Your task to perform on an android device: set the stopwatch Image 0: 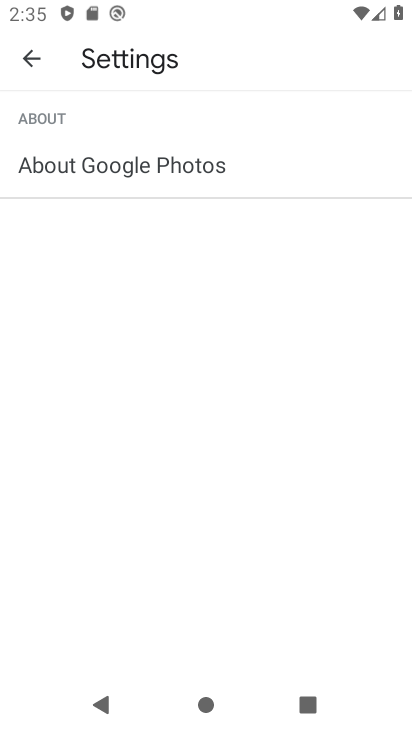
Step 0: press home button
Your task to perform on an android device: set the stopwatch Image 1: 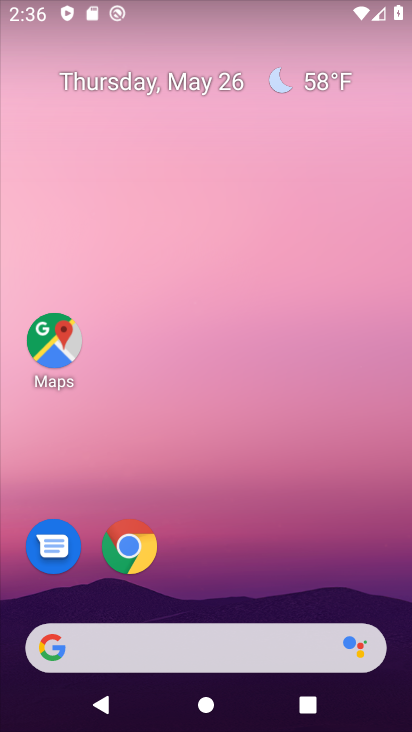
Step 1: drag from (209, 547) to (209, 105)
Your task to perform on an android device: set the stopwatch Image 2: 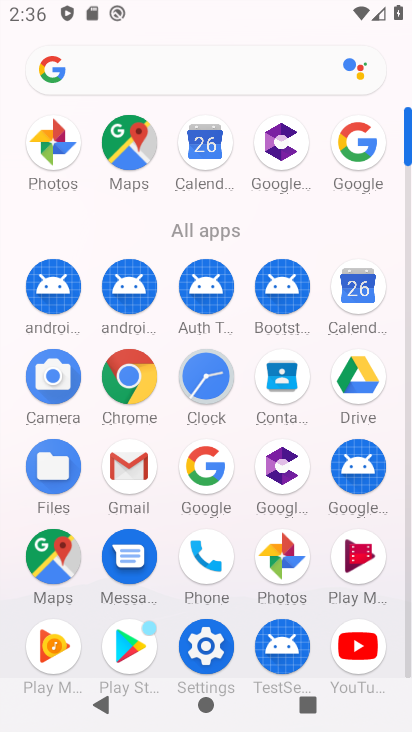
Step 2: click (202, 371)
Your task to perform on an android device: set the stopwatch Image 3: 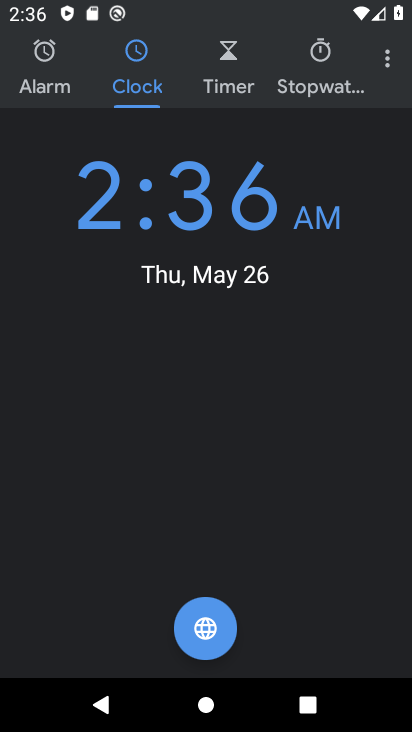
Step 3: click (316, 56)
Your task to perform on an android device: set the stopwatch Image 4: 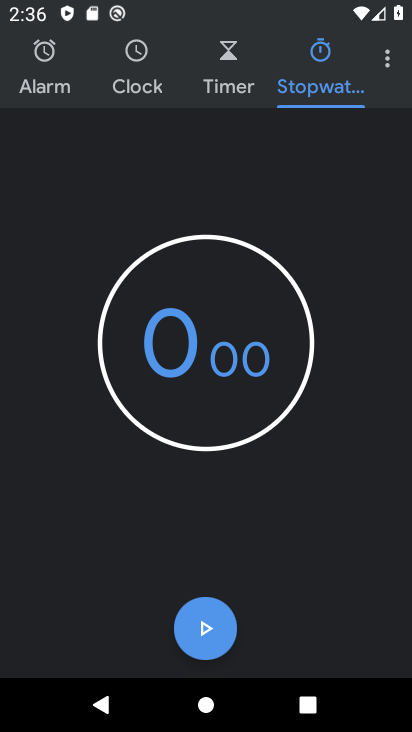
Step 4: click (199, 636)
Your task to perform on an android device: set the stopwatch Image 5: 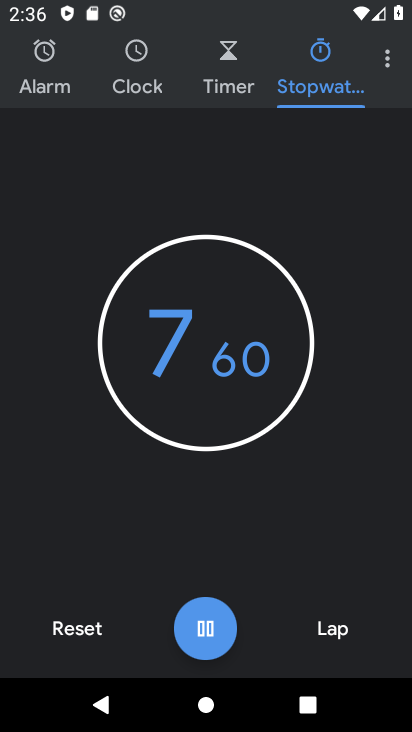
Step 5: click (74, 623)
Your task to perform on an android device: set the stopwatch Image 6: 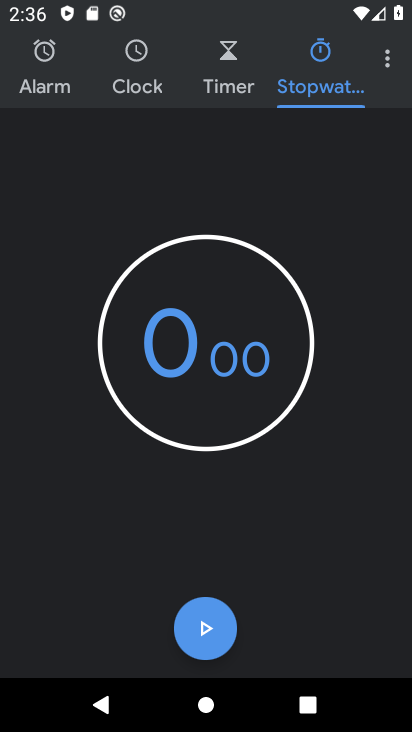
Step 6: task complete